Your task to perform on an android device: toggle notifications settings in the gmail app Image 0: 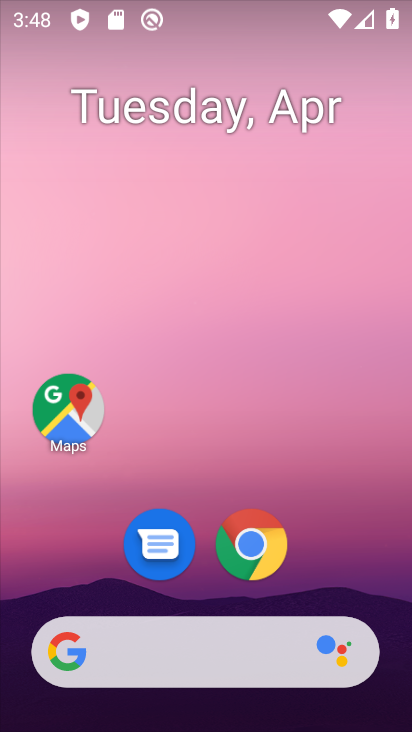
Step 0: drag from (210, 602) to (346, 4)
Your task to perform on an android device: toggle notifications settings in the gmail app Image 1: 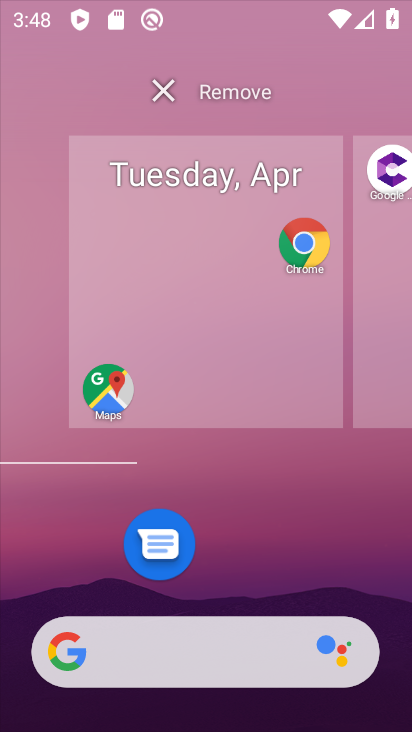
Step 1: click (281, 542)
Your task to perform on an android device: toggle notifications settings in the gmail app Image 2: 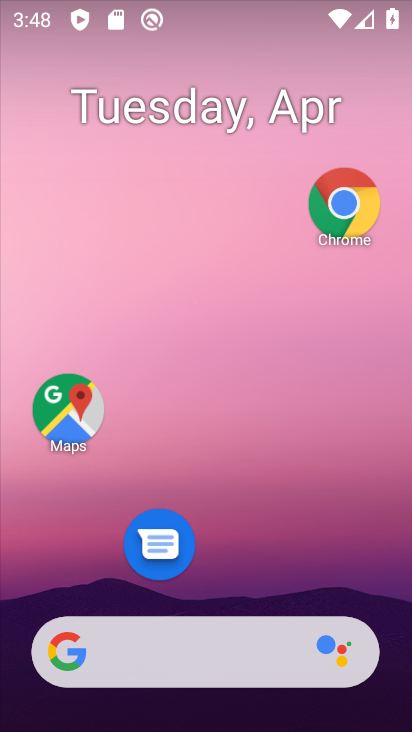
Step 2: drag from (259, 591) to (391, 0)
Your task to perform on an android device: toggle notifications settings in the gmail app Image 3: 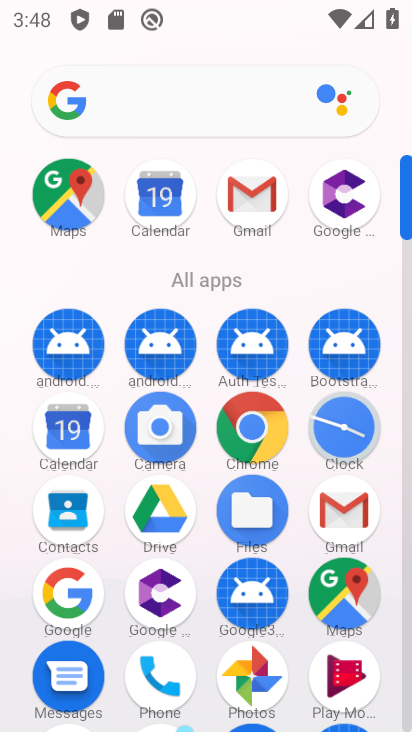
Step 3: click (351, 510)
Your task to perform on an android device: toggle notifications settings in the gmail app Image 4: 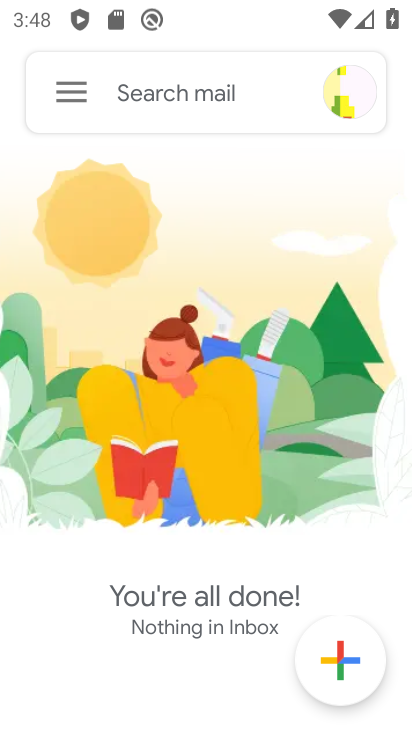
Step 4: click (52, 90)
Your task to perform on an android device: toggle notifications settings in the gmail app Image 5: 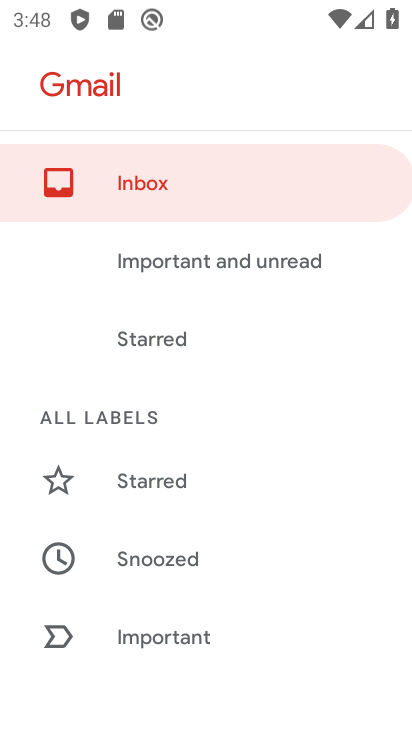
Step 5: drag from (177, 583) to (365, 15)
Your task to perform on an android device: toggle notifications settings in the gmail app Image 6: 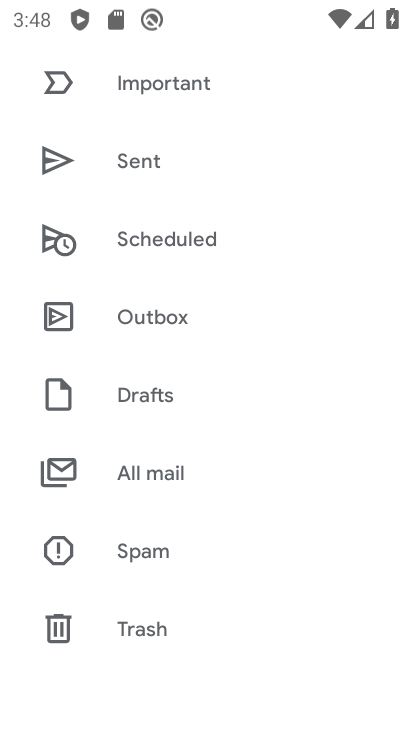
Step 6: drag from (349, 34) to (366, 3)
Your task to perform on an android device: toggle notifications settings in the gmail app Image 7: 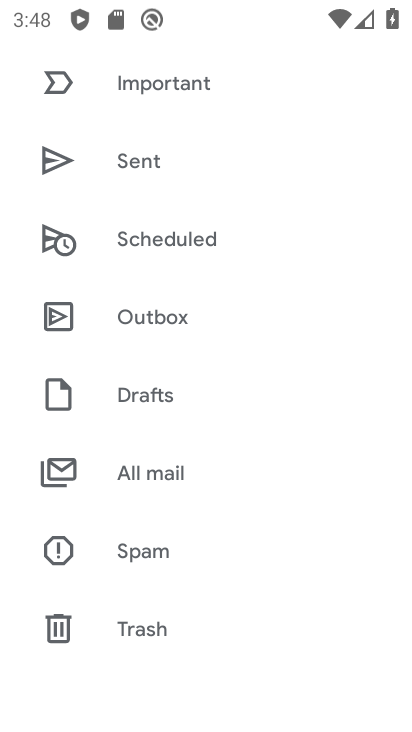
Step 7: drag from (227, 217) to (289, 4)
Your task to perform on an android device: toggle notifications settings in the gmail app Image 8: 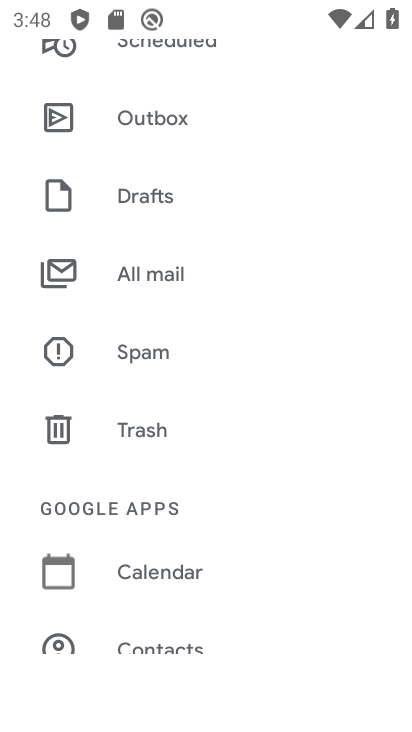
Step 8: drag from (211, 272) to (275, 4)
Your task to perform on an android device: toggle notifications settings in the gmail app Image 9: 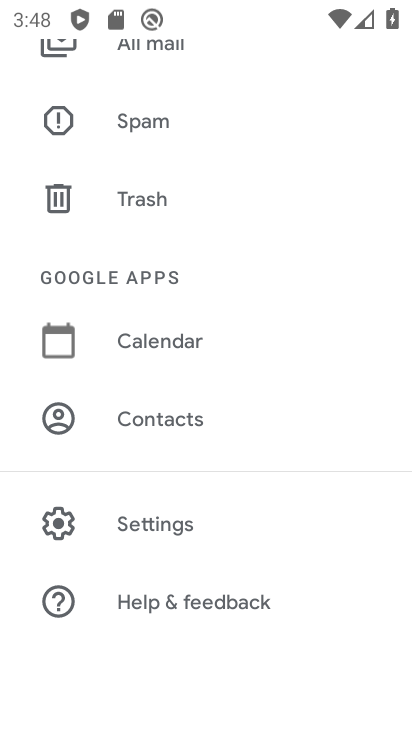
Step 9: drag from (151, 582) to (227, 70)
Your task to perform on an android device: toggle notifications settings in the gmail app Image 10: 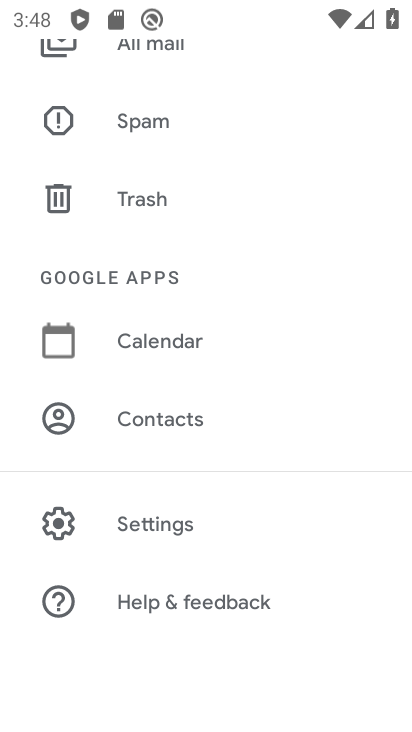
Step 10: click (167, 525)
Your task to perform on an android device: toggle notifications settings in the gmail app Image 11: 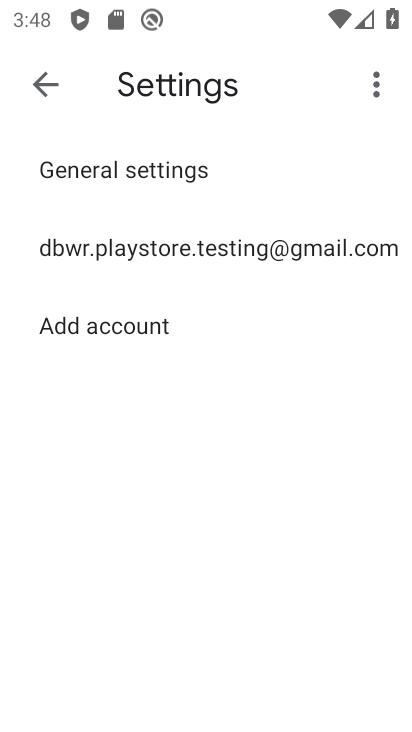
Step 11: click (166, 176)
Your task to perform on an android device: toggle notifications settings in the gmail app Image 12: 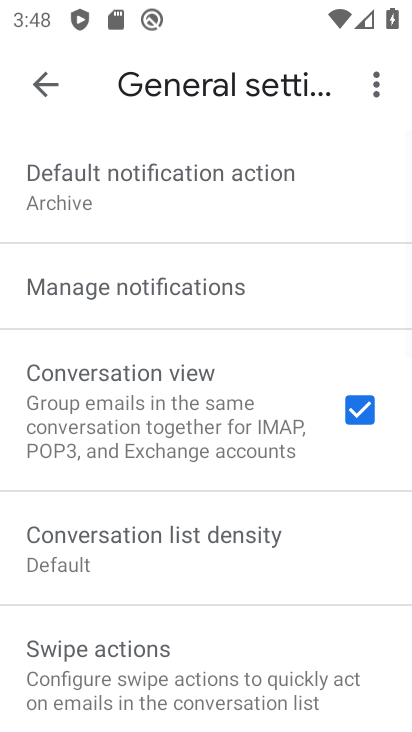
Step 12: click (171, 296)
Your task to perform on an android device: toggle notifications settings in the gmail app Image 13: 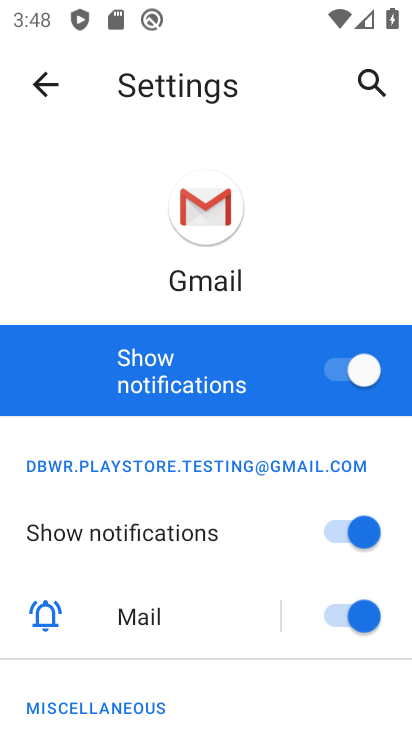
Step 13: click (324, 362)
Your task to perform on an android device: toggle notifications settings in the gmail app Image 14: 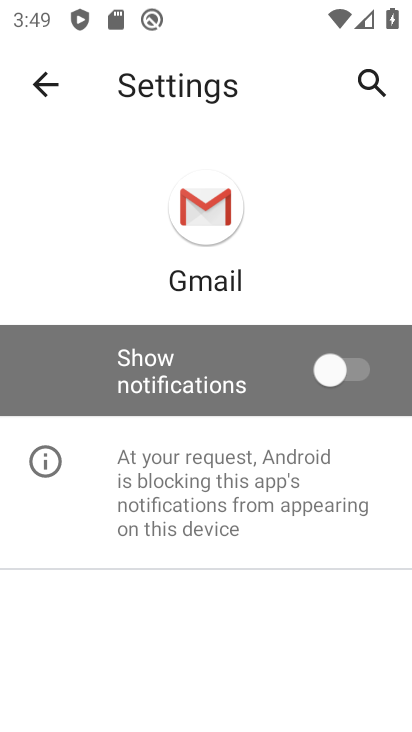
Step 14: task complete